Your task to perform on an android device: delete the emails in spam in the gmail app Image 0: 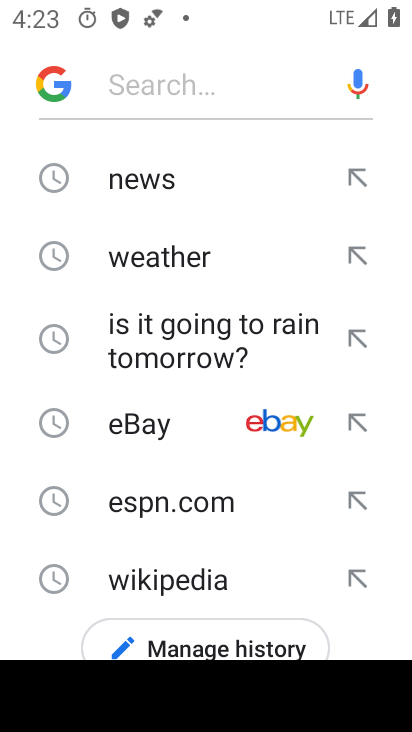
Step 0: press home button
Your task to perform on an android device: delete the emails in spam in the gmail app Image 1: 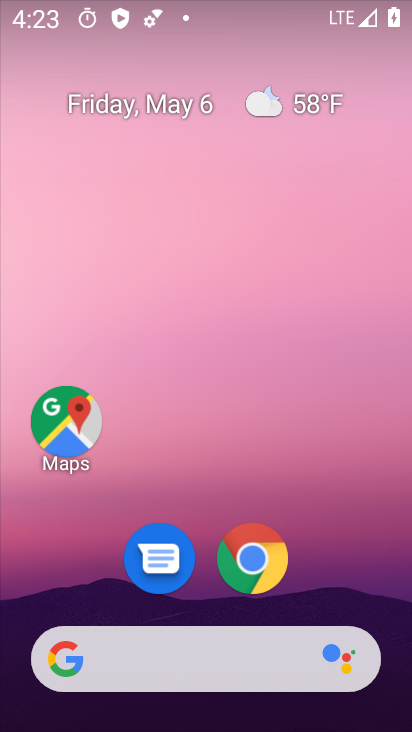
Step 1: drag from (328, 624) to (341, 40)
Your task to perform on an android device: delete the emails in spam in the gmail app Image 2: 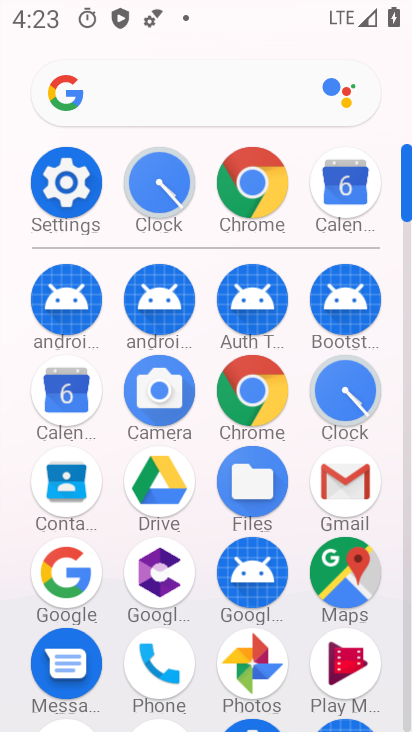
Step 2: click (350, 477)
Your task to perform on an android device: delete the emails in spam in the gmail app Image 3: 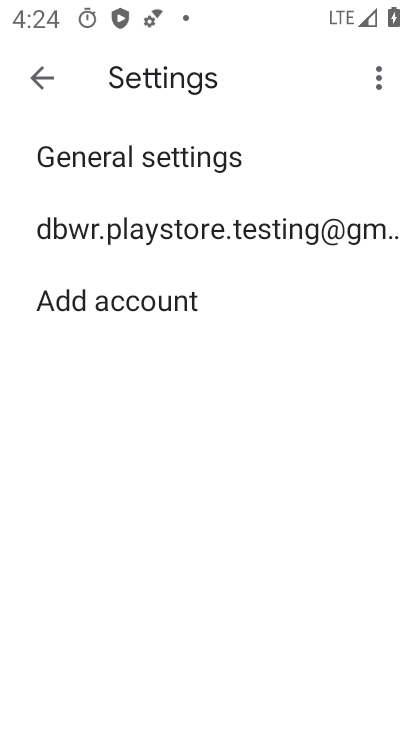
Step 3: press back button
Your task to perform on an android device: delete the emails in spam in the gmail app Image 4: 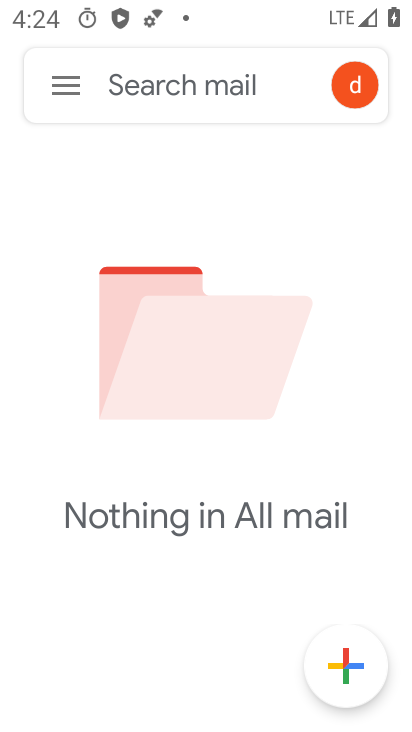
Step 4: drag from (71, 78) to (180, 333)
Your task to perform on an android device: delete the emails in spam in the gmail app Image 5: 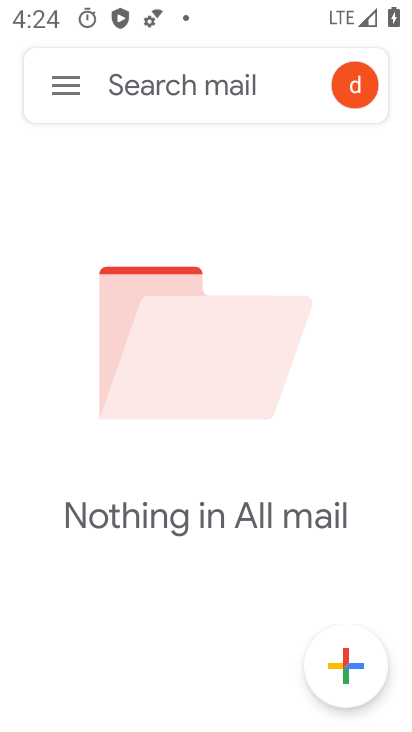
Step 5: click (69, 92)
Your task to perform on an android device: delete the emails in spam in the gmail app Image 6: 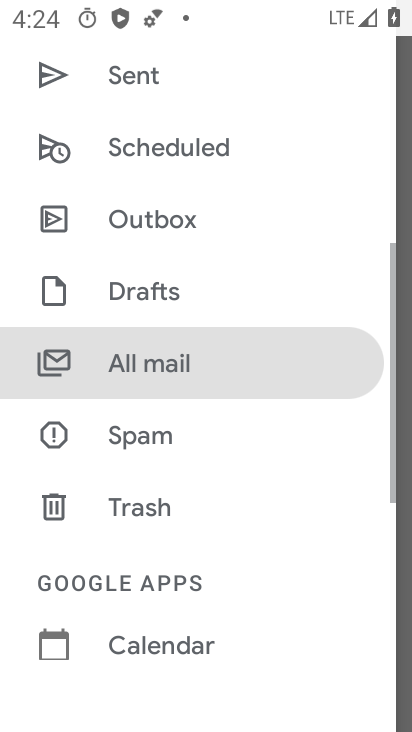
Step 6: drag from (203, 220) to (238, 632)
Your task to perform on an android device: delete the emails in spam in the gmail app Image 7: 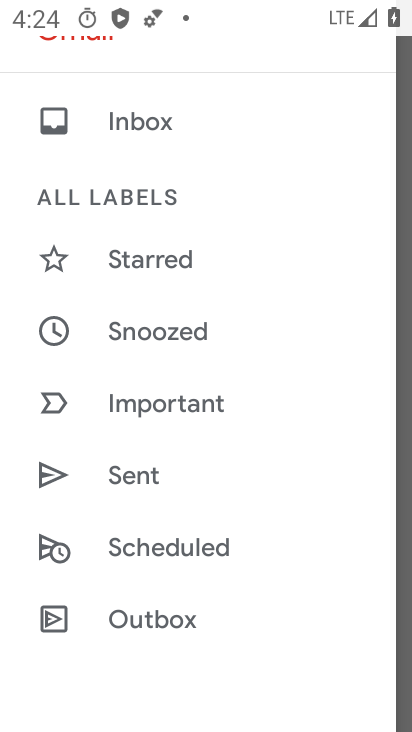
Step 7: drag from (190, 638) to (217, 182)
Your task to perform on an android device: delete the emails in spam in the gmail app Image 8: 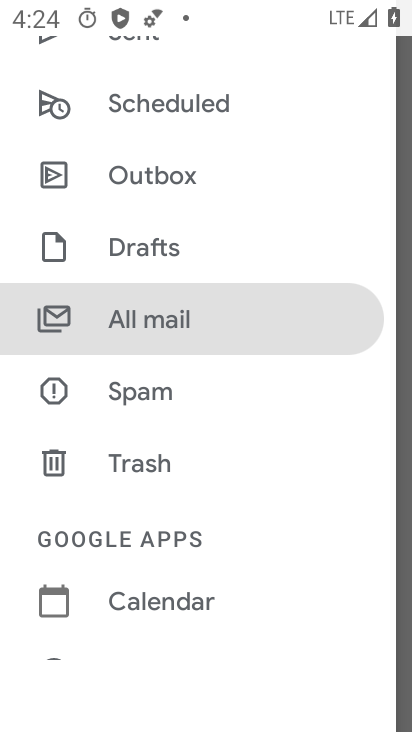
Step 8: click (179, 399)
Your task to perform on an android device: delete the emails in spam in the gmail app Image 9: 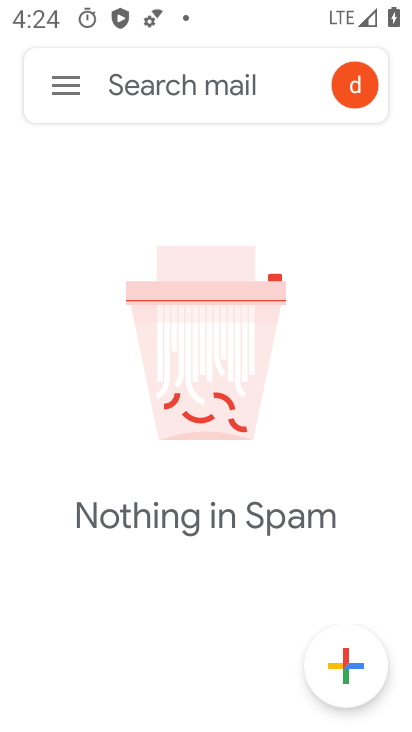
Step 9: task complete